Your task to perform on an android device: Find coffee shops on Maps Image 0: 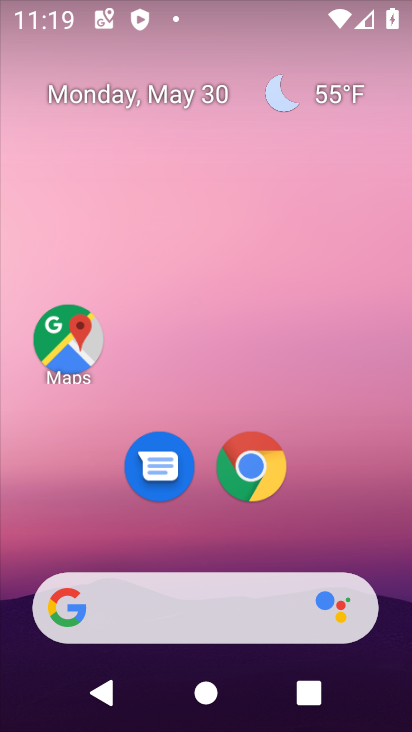
Step 0: click (52, 342)
Your task to perform on an android device: Find coffee shops on Maps Image 1: 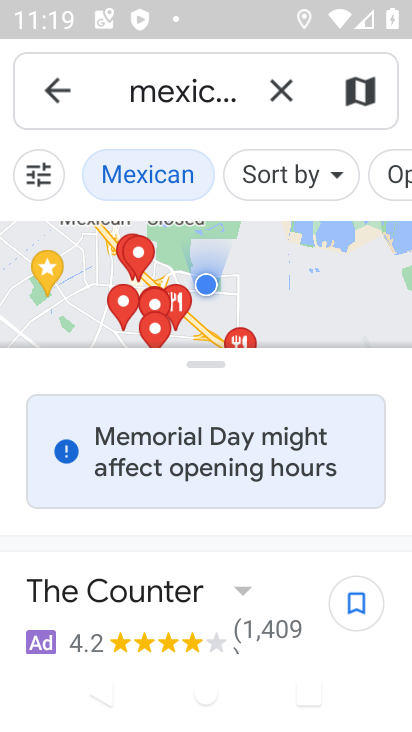
Step 1: click (284, 79)
Your task to perform on an android device: Find coffee shops on Maps Image 2: 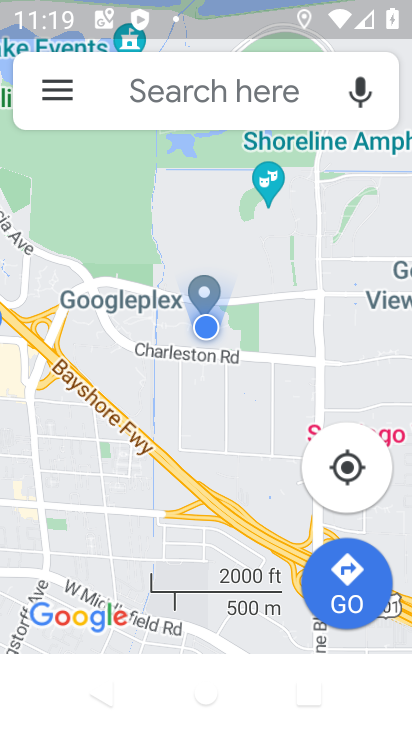
Step 2: click (236, 88)
Your task to perform on an android device: Find coffee shops on Maps Image 3: 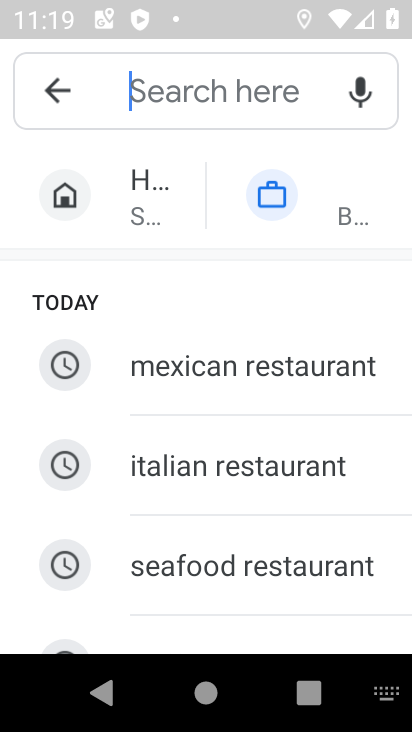
Step 3: type "coffee shops"
Your task to perform on an android device: Find coffee shops on Maps Image 4: 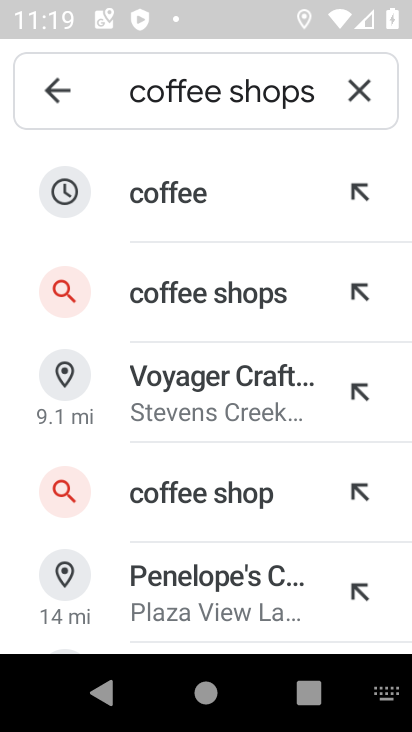
Step 4: click (196, 303)
Your task to perform on an android device: Find coffee shops on Maps Image 5: 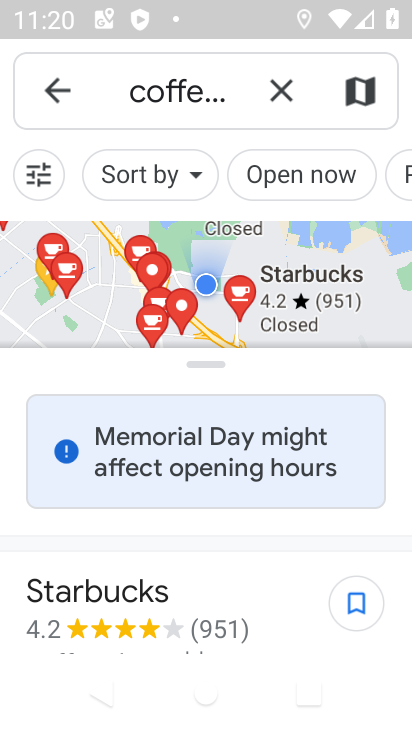
Step 5: task complete